Your task to perform on an android device: toggle improve location accuracy Image 0: 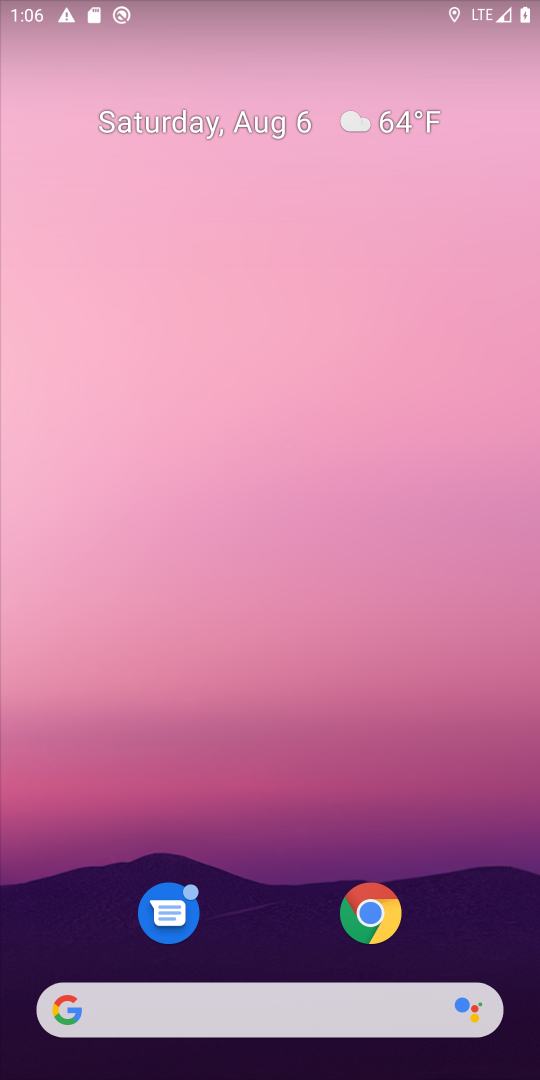
Step 0: press home button
Your task to perform on an android device: toggle improve location accuracy Image 1: 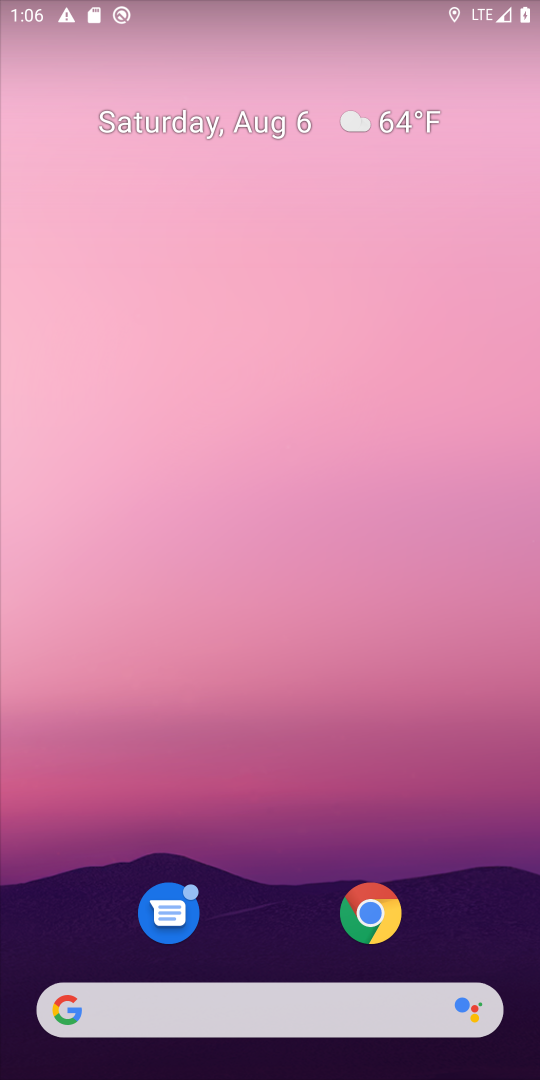
Step 1: drag from (465, 919) to (458, 227)
Your task to perform on an android device: toggle improve location accuracy Image 2: 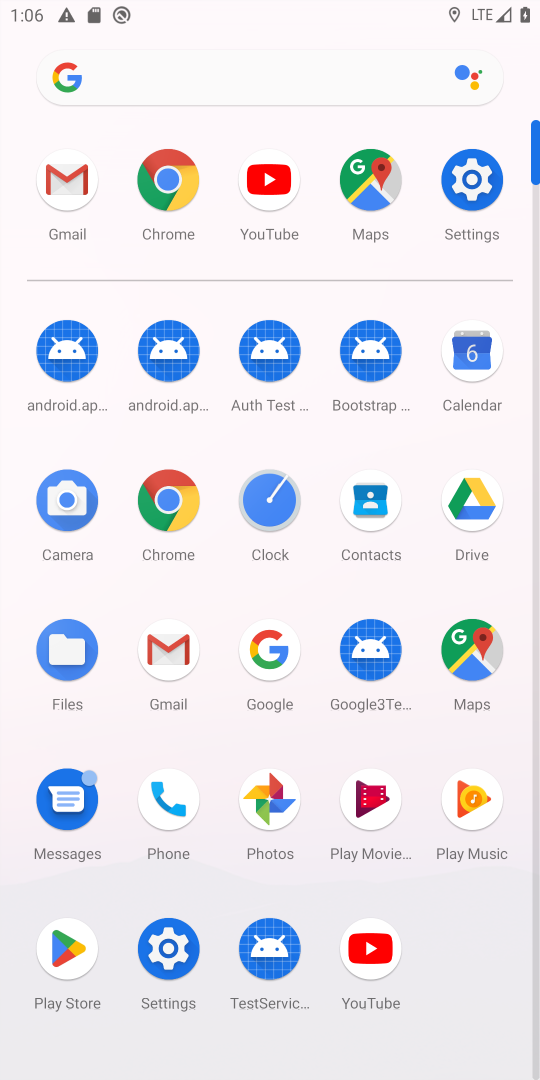
Step 2: click (467, 179)
Your task to perform on an android device: toggle improve location accuracy Image 3: 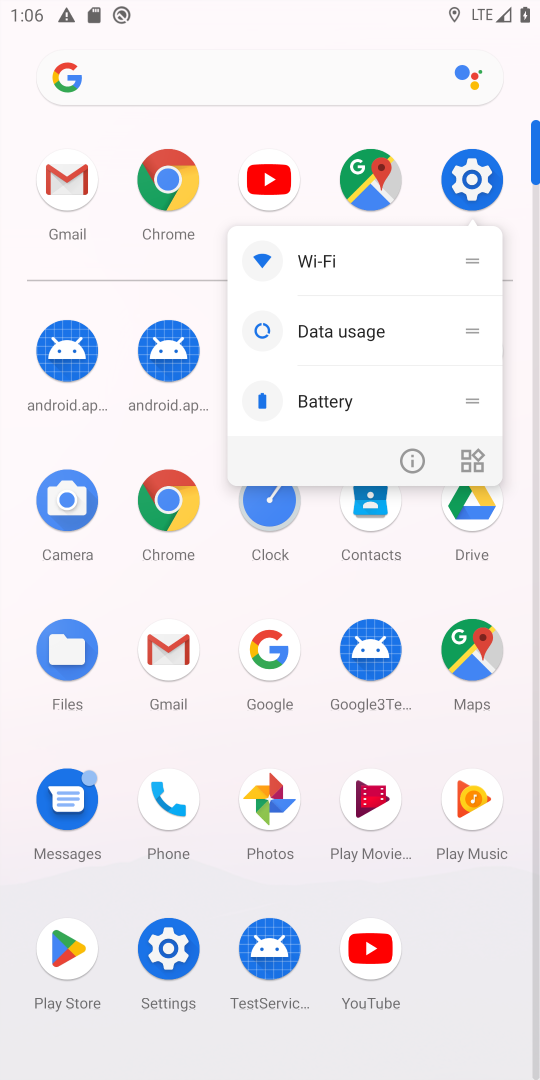
Step 3: click (467, 179)
Your task to perform on an android device: toggle improve location accuracy Image 4: 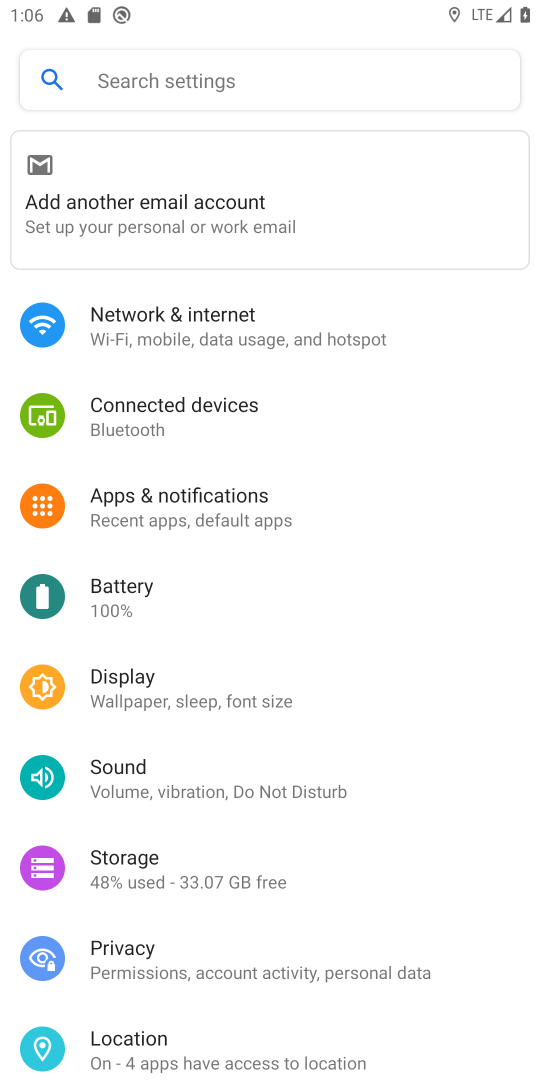
Step 4: drag from (461, 648) to (449, 544)
Your task to perform on an android device: toggle improve location accuracy Image 5: 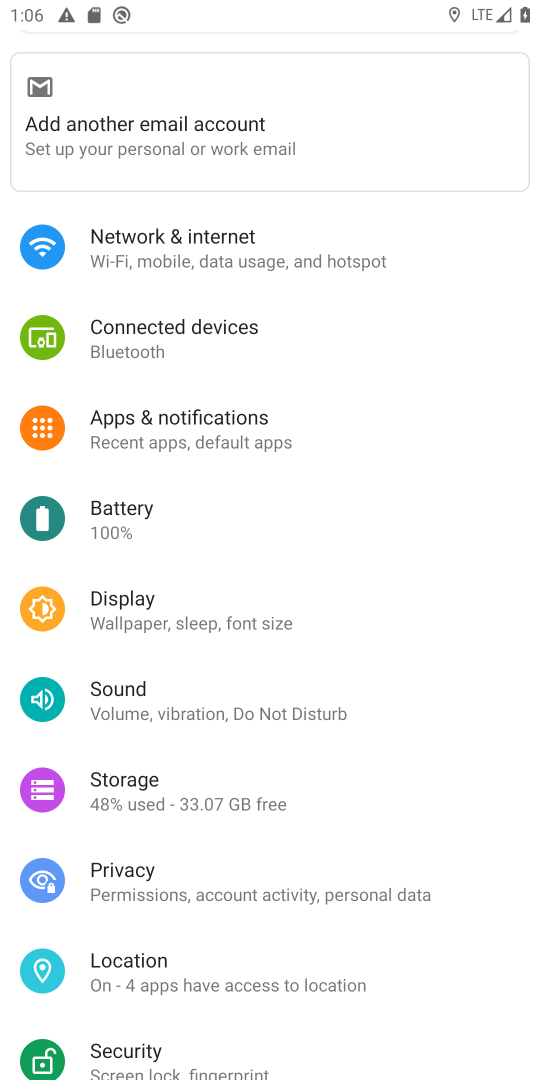
Step 5: drag from (457, 696) to (465, 546)
Your task to perform on an android device: toggle improve location accuracy Image 6: 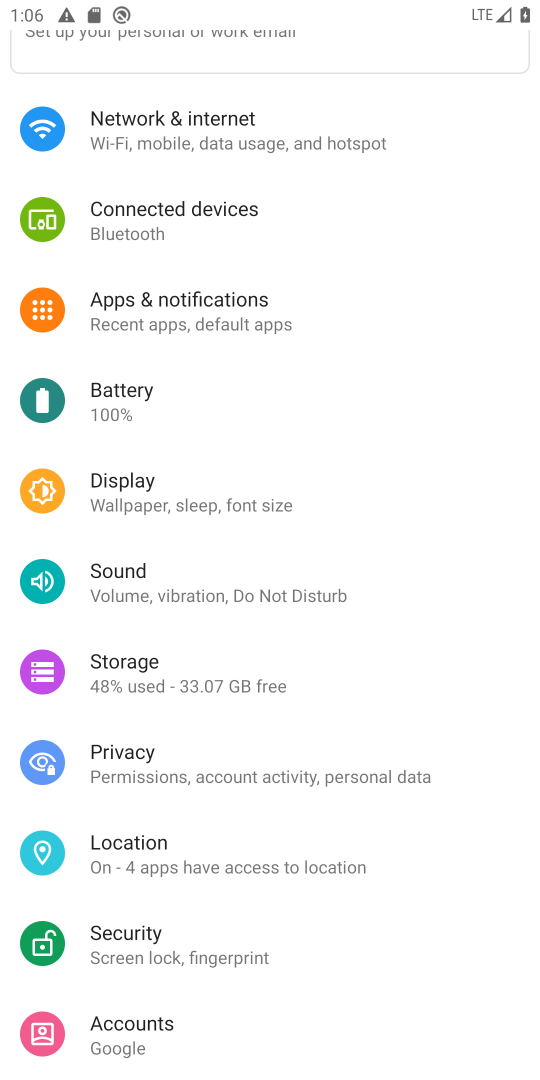
Step 6: drag from (463, 742) to (470, 561)
Your task to perform on an android device: toggle improve location accuracy Image 7: 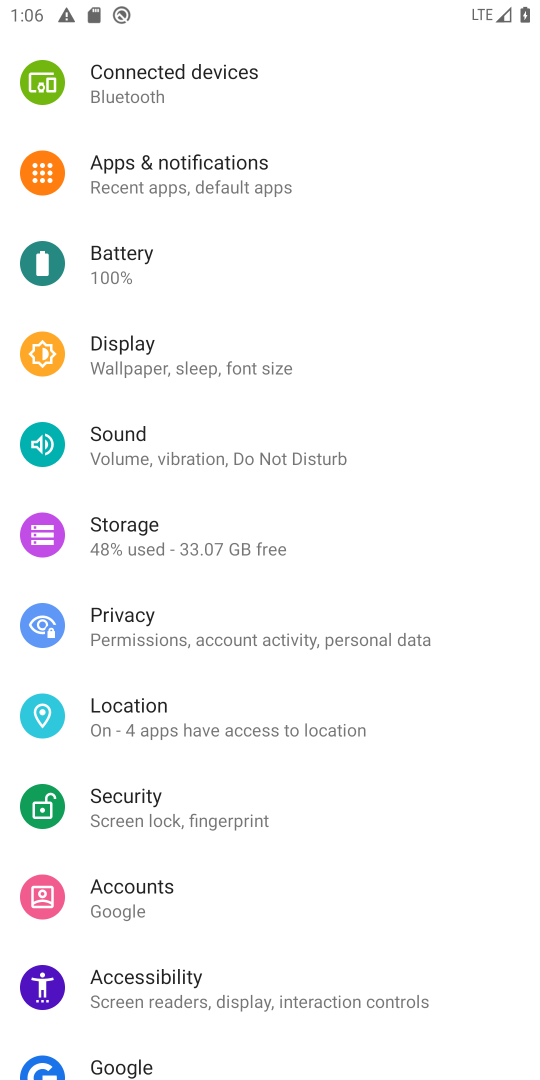
Step 7: drag from (475, 810) to (458, 600)
Your task to perform on an android device: toggle improve location accuracy Image 8: 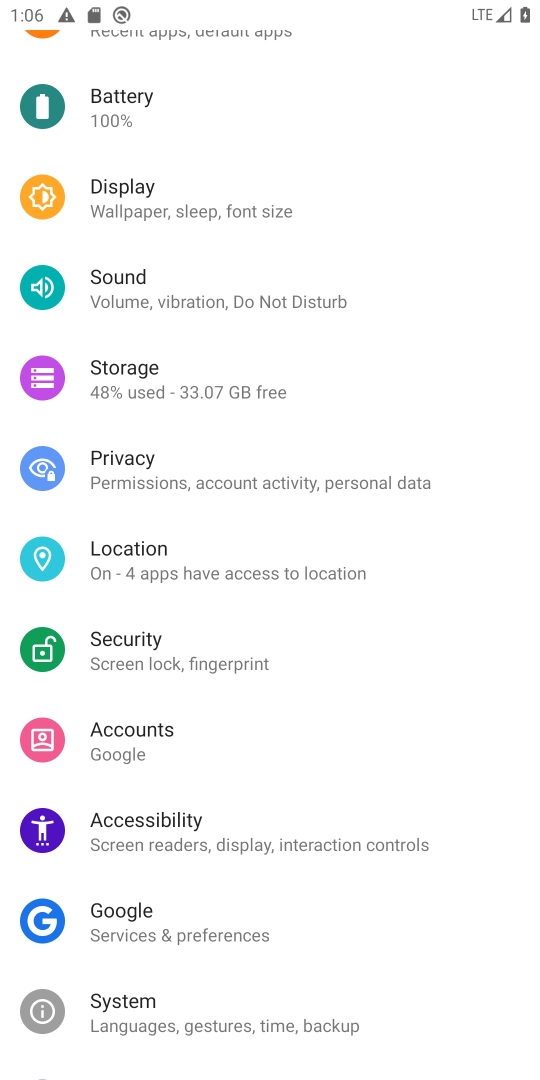
Step 8: drag from (431, 787) to (426, 623)
Your task to perform on an android device: toggle improve location accuracy Image 9: 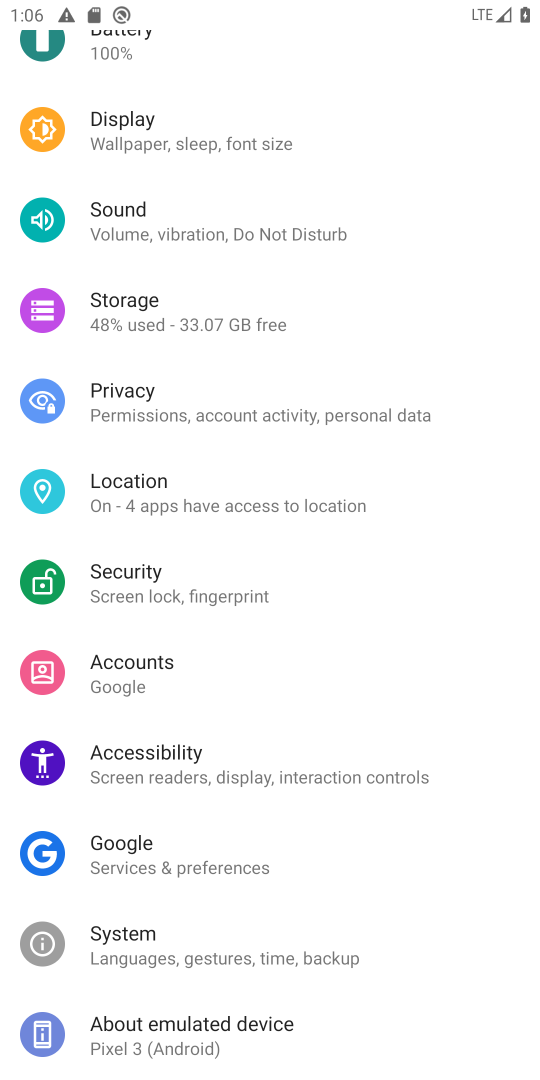
Step 9: drag from (424, 417) to (420, 614)
Your task to perform on an android device: toggle improve location accuracy Image 10: 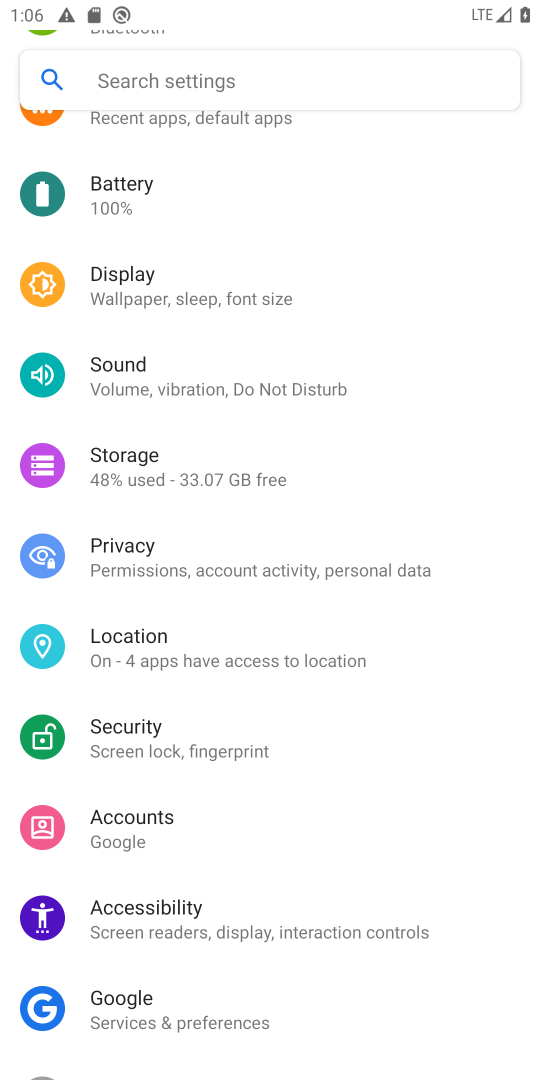
Step 10: drag from (408, 412) to (408, 562)
Your task to perform on an android device: toggle improve location accuracy Image 11: 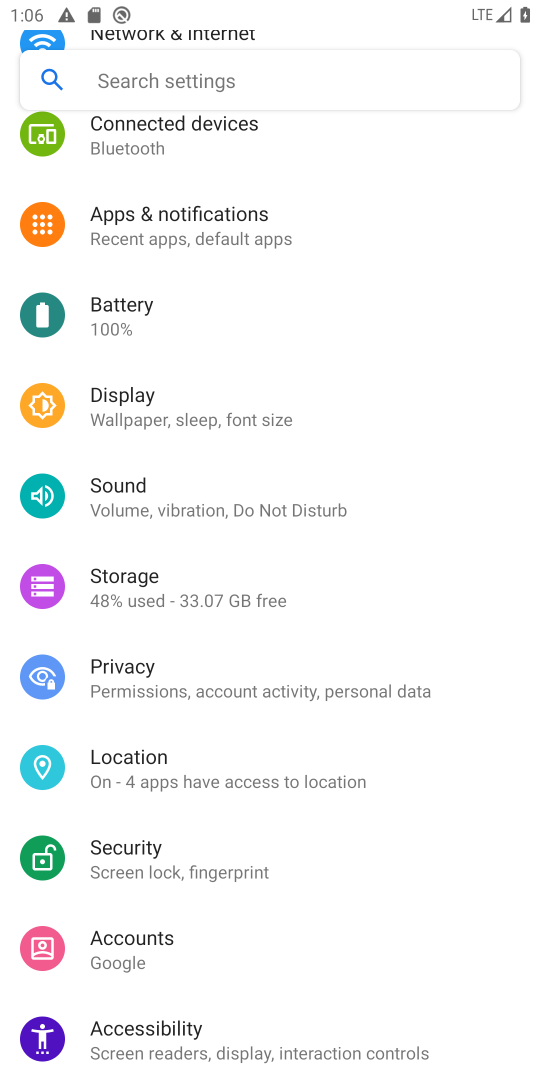
Step 11: drag from (416, 378) to (418, 533)
Your task to perform on an android device: toggle improve location accuracy Image 12: 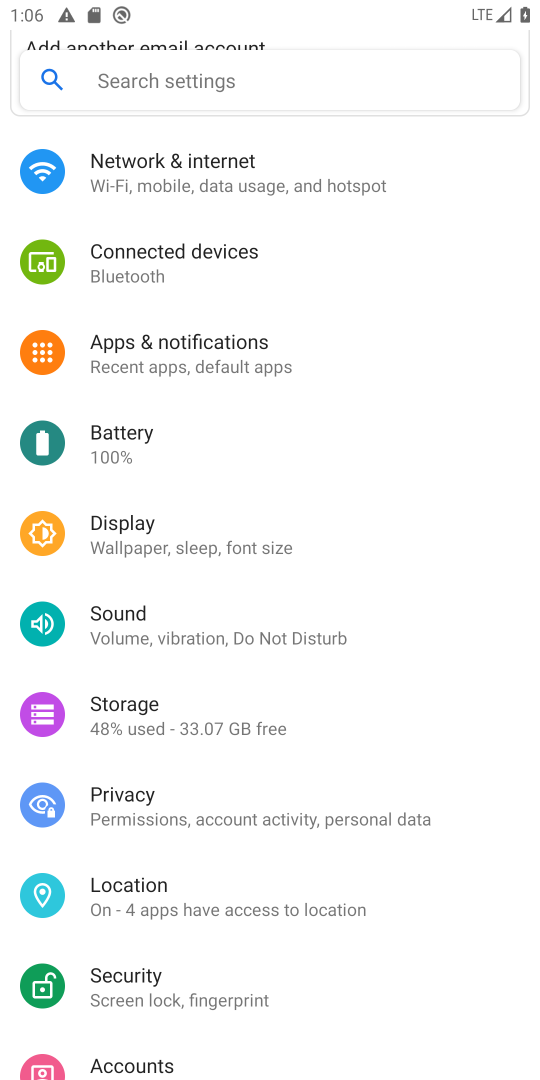
Step 12: click (423, 881)
Your task to perform on an android device: toggle improve location accuracy Image 13: 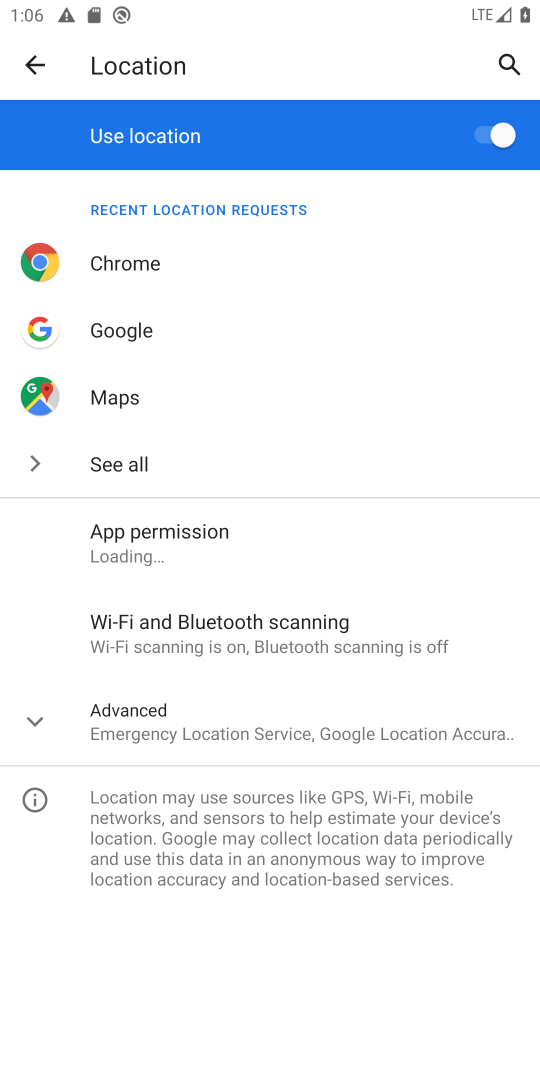
Step 13: click (377, 729)
Your task to perform on an android device: toggle improve location accuracy Image 14: 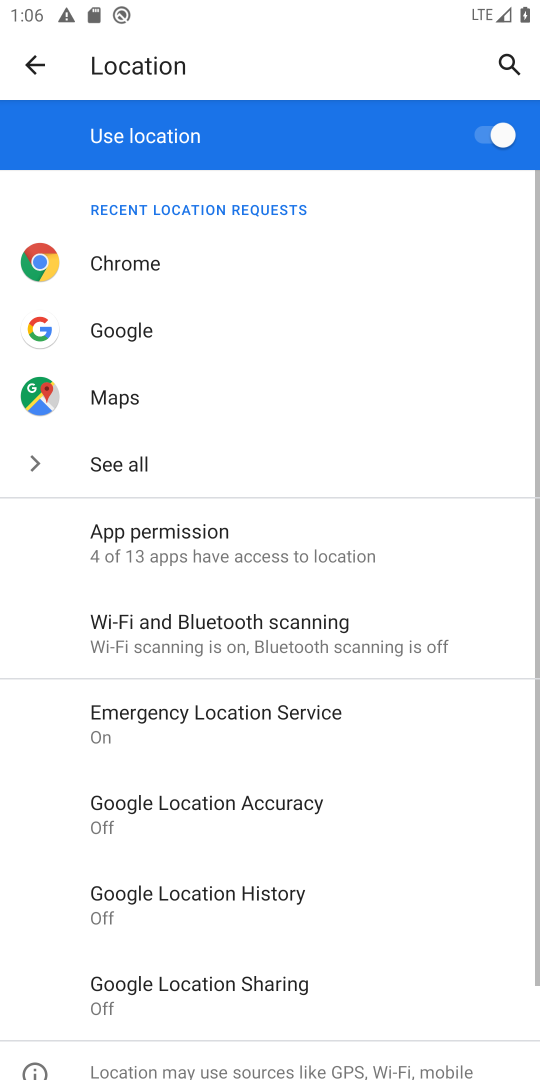
Step 14: drag from (361, 817) to (411, 504)
Your task to perform on an android device: toggle improve location accuracy Image 15: 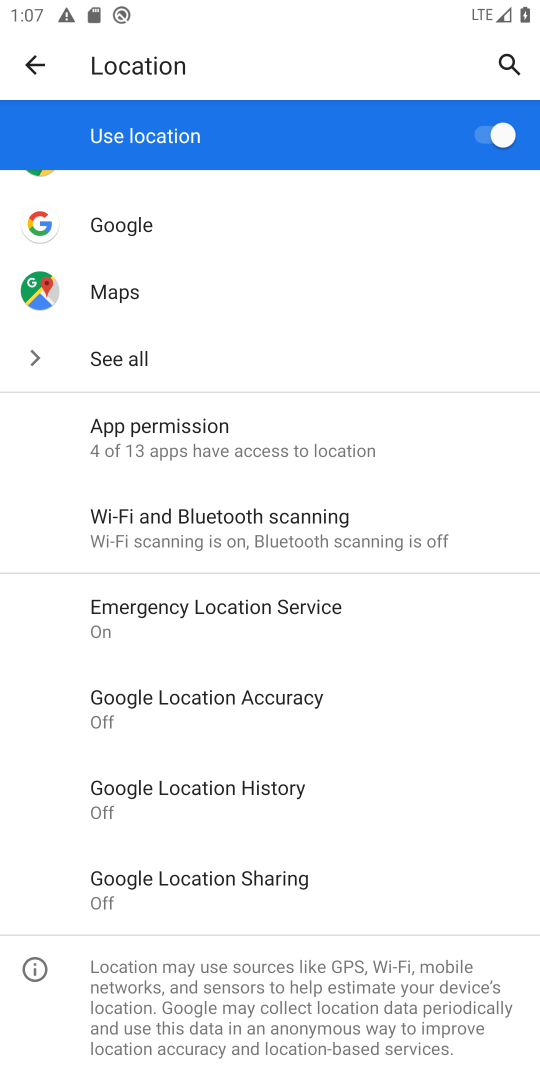
Step 15: click (318, 699)
Your task to perform on an android device: toggle improve location accuracy Image 16: 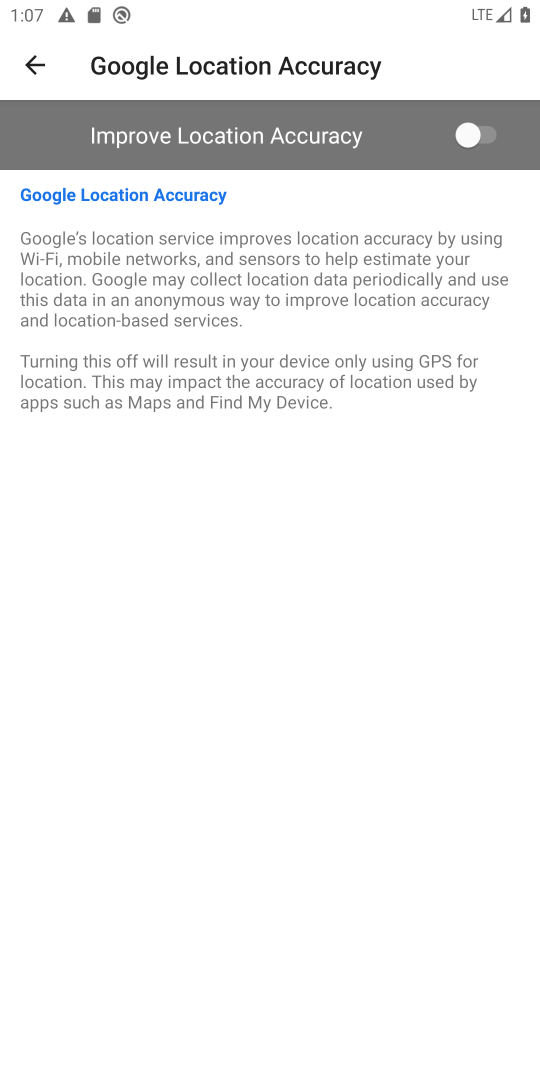
Step 16: click (470, 132)
Your task to perform on an android device: toggle improve location accuracy Image 17: 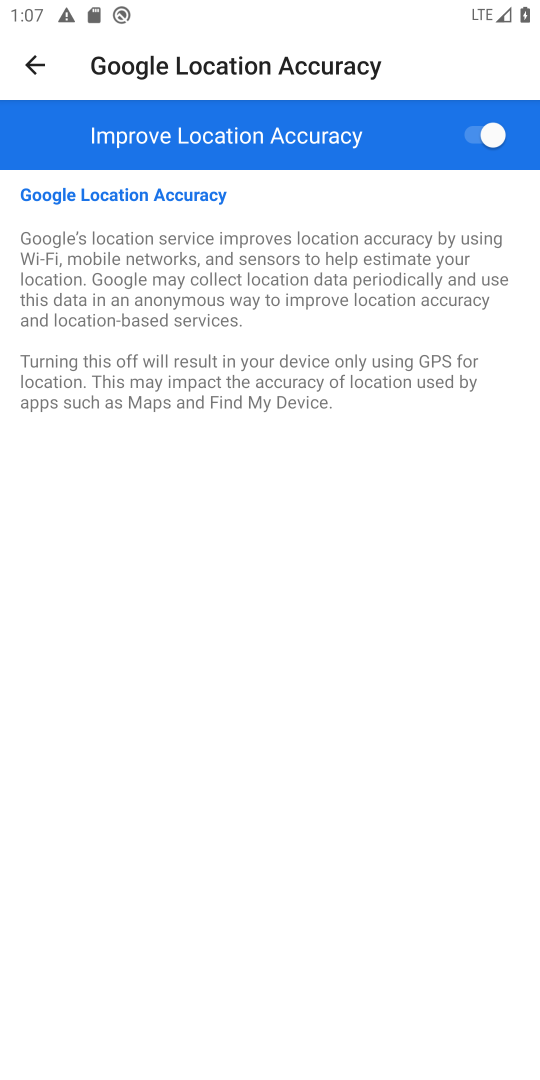
Step 17: task complete